Your task to perform on an android device: turn off wifi Image 0: 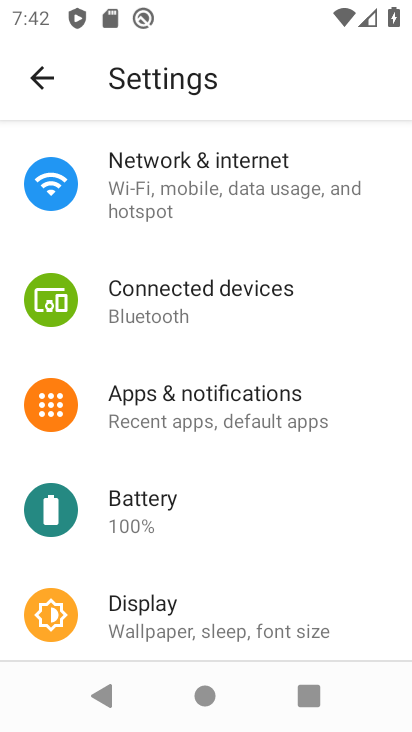
Step 0: click (231, 167)
Your task to perform on an android device: turn off wifi Image 1: 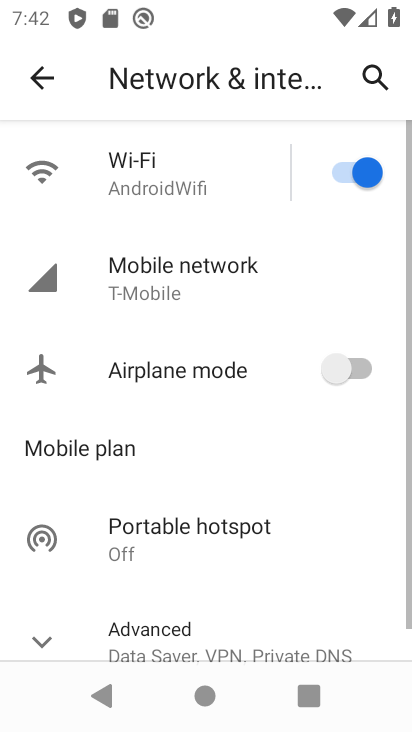
Step 1: click (330, 174)
Your task to perform on an android device: turn off wifi Image 2: 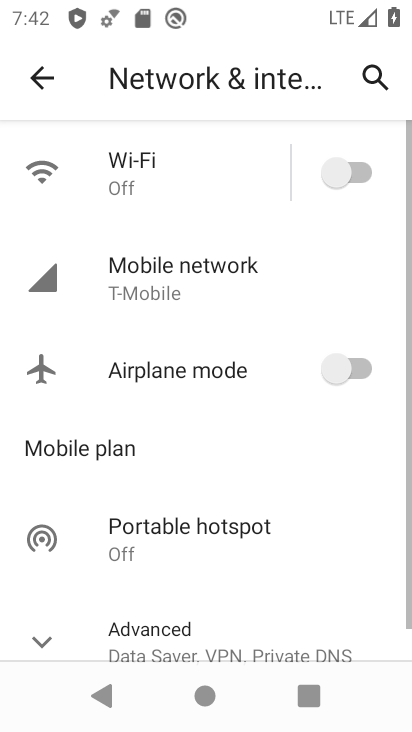
Step 2: task complete